Your task to perform on an android device: check out phone information Image 0: 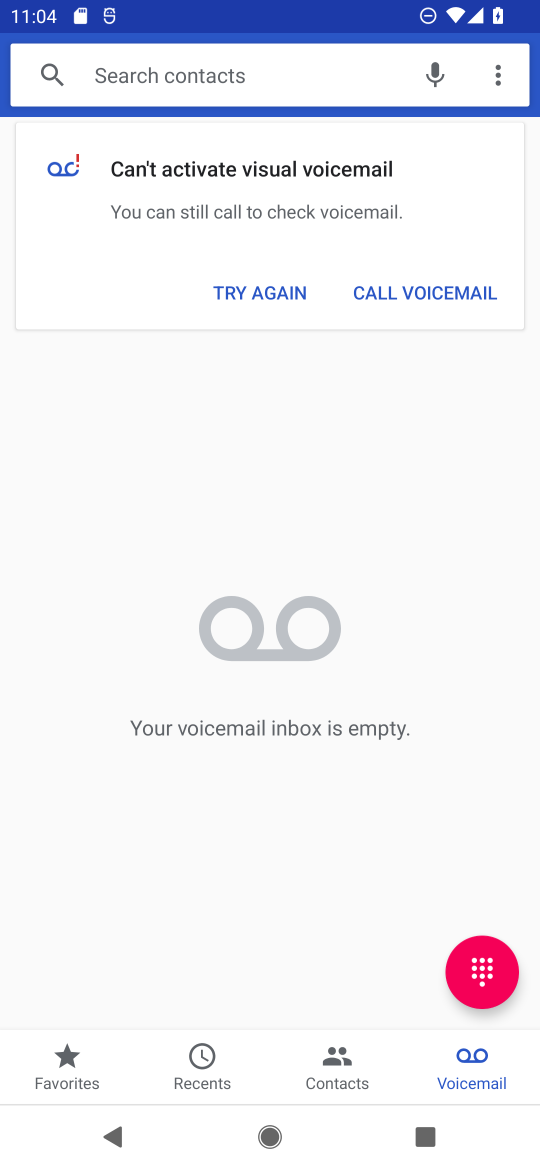
Step 0: press home button
Your task to perform on an android device: check out phone information Image 1: 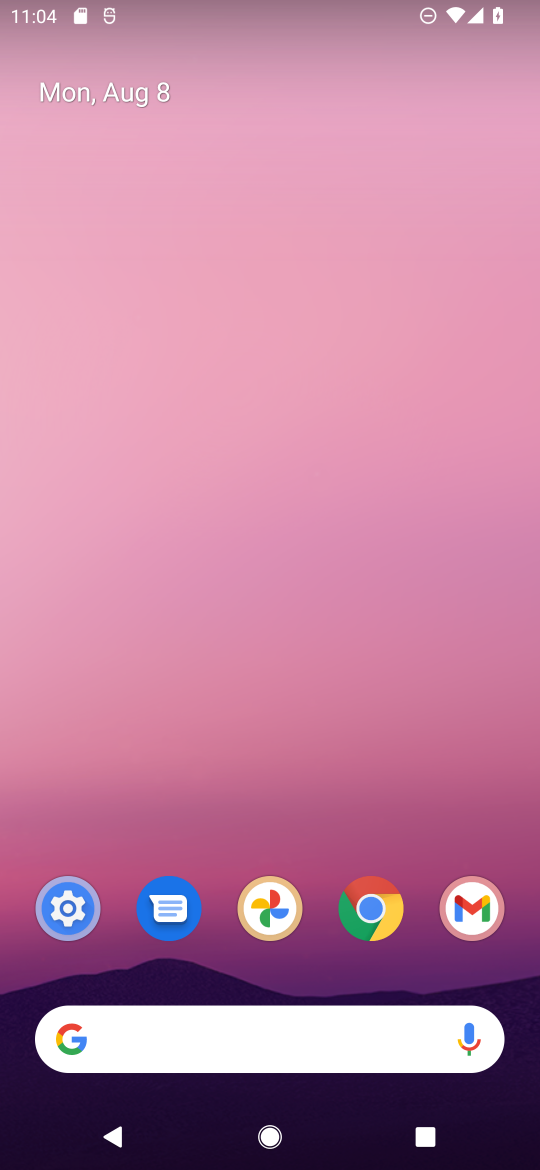
Step 1: drag from (324, 866) to (389, 77)
Your task to perform on an android device: check out phone information Image 2: 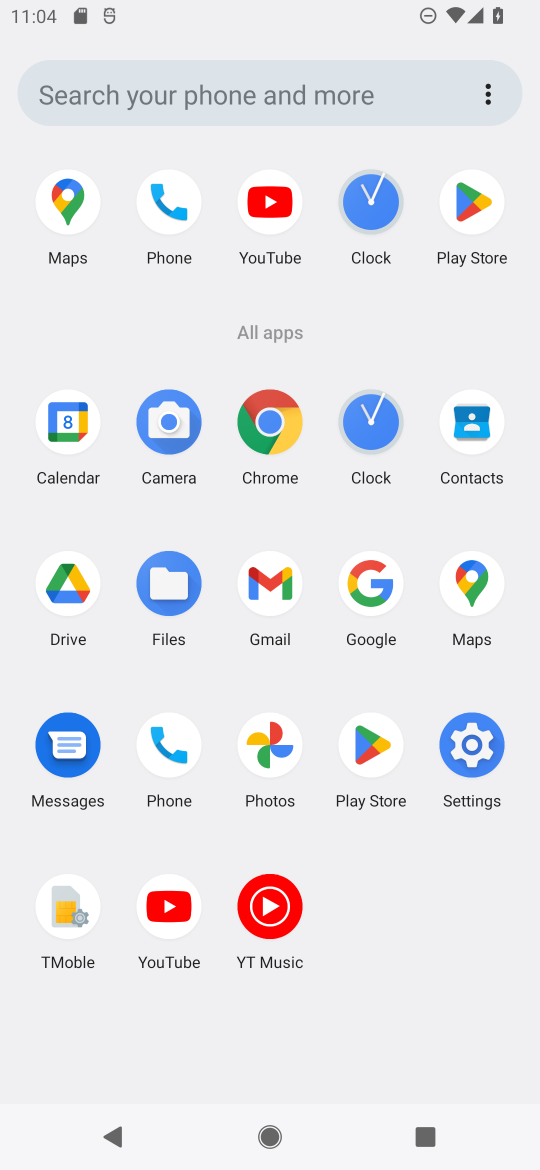
Step 2: click (474, 731)
Your task to perform on an android device: check out phone information Image 3: 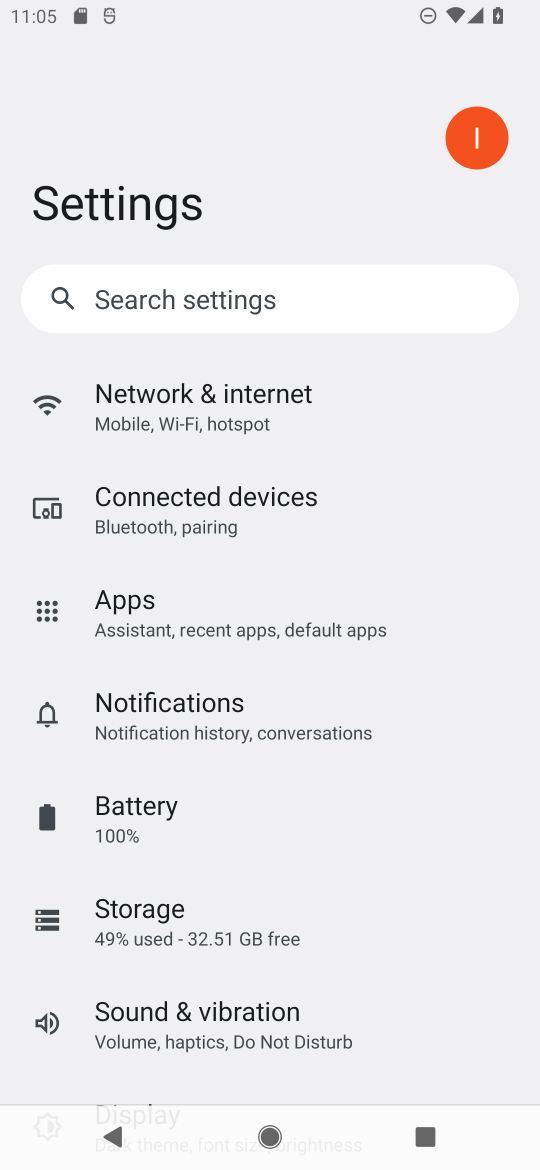
Step 3: drag from (250, 954) to (301, 244)
Your task to perform on an android device: check out phone information Image 4: 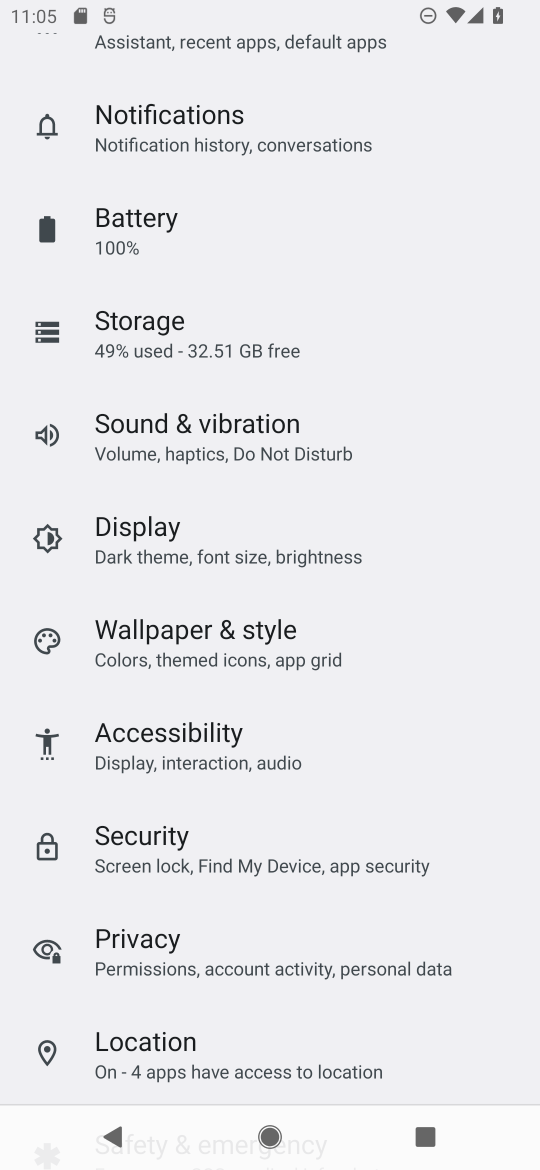
Step 4: drag from (243, 1011) to (278, 190)
Your task to perform on an android device: check out phone information Image 5: 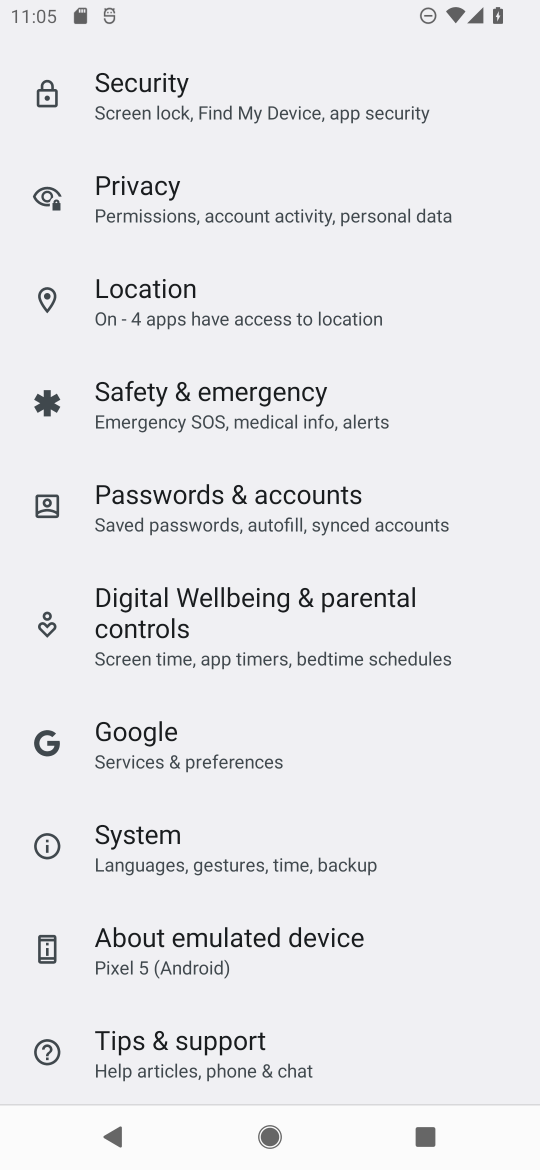
Step 5: drag from (210, 1056) to (273, 391)
Your task to perform on an android device: check out phone information Image 6: 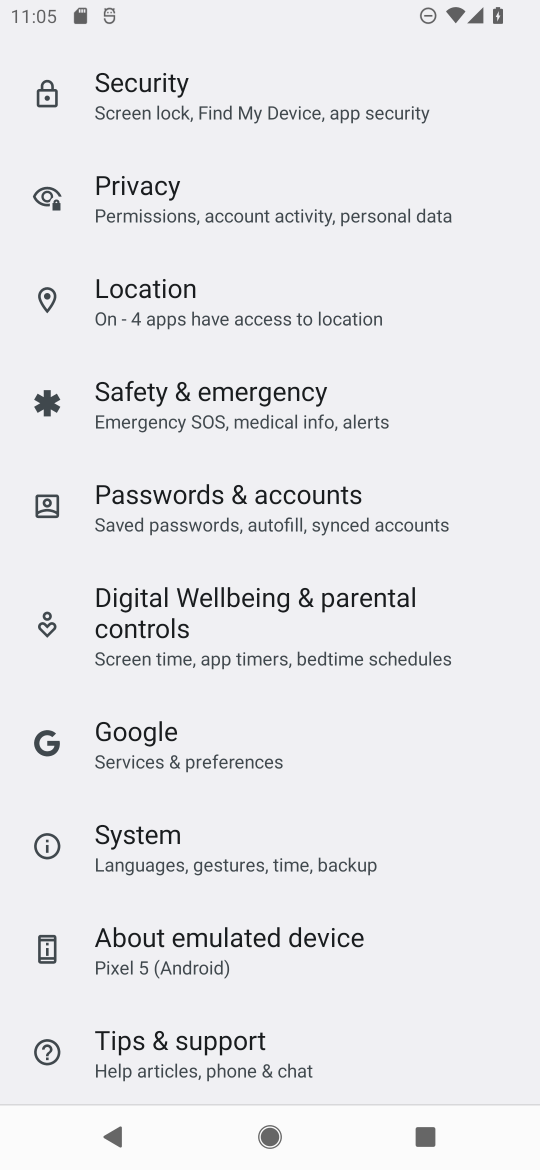
Step 6: click (213, 960)
Your task to perform on an android device: check out phone information Image 7: 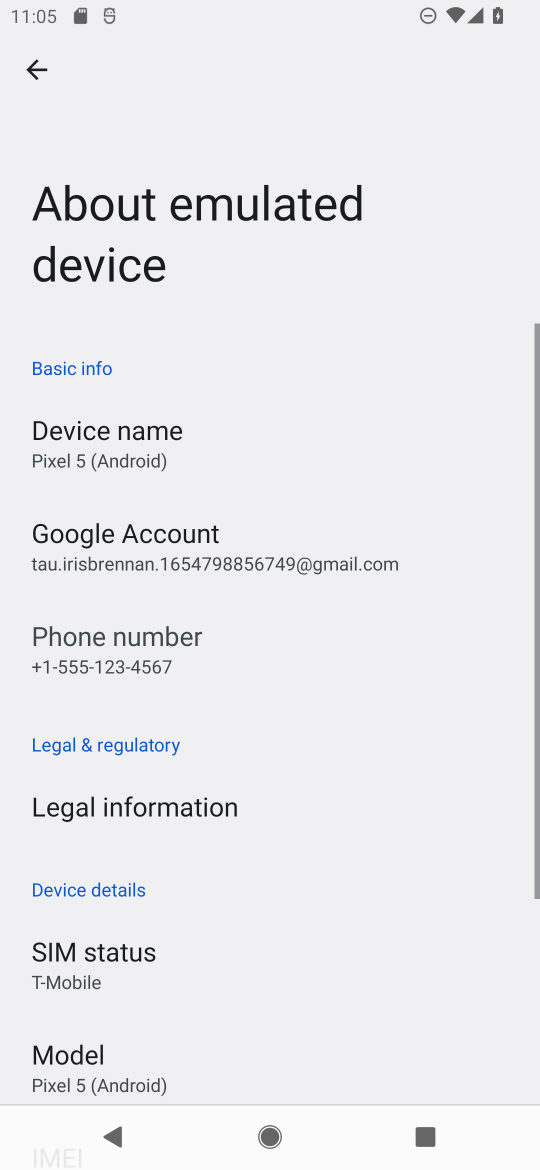
Step 7: task complete